Your task to perform on an android device: turn on data saver in the chrome app Image 0: 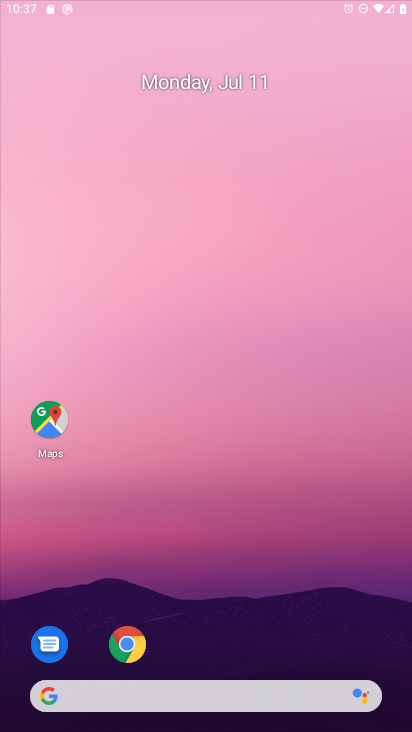
Step 0: drag from (197, 616) to (214, 384)
Your task to perform on an android device: turn on data saver in the chrome app Image 1: 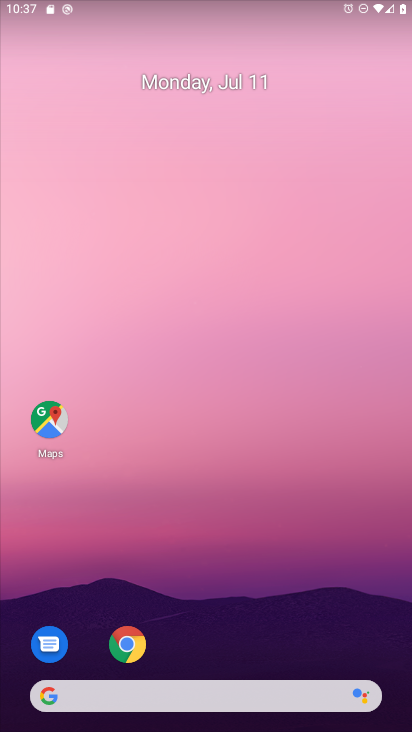
Step 1: drag from (212, 679) to (195, 327)
Your task to perform on an android device: turn on data saver in the chrome app Image 2: 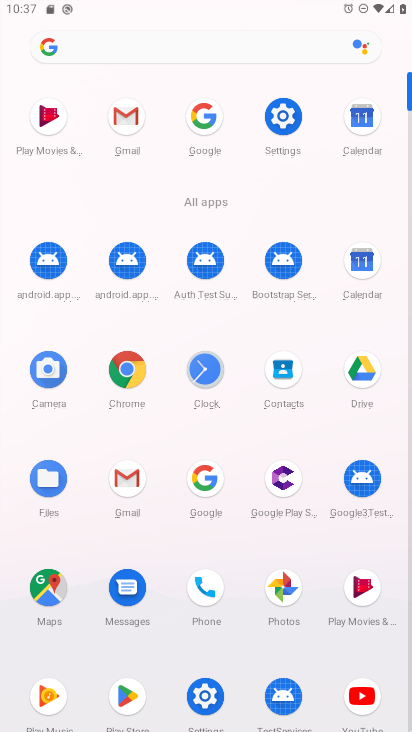
Step 2: click (271, 118)
Your task to perform on an android device: turn on data saver in the chrome app Image 3: 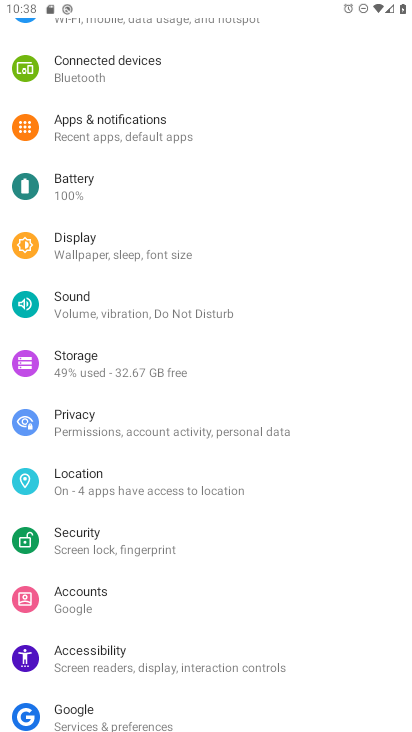
Step 3: press home button
Your task to perform on an android device: turn on data saver in the chrome app Image 4: 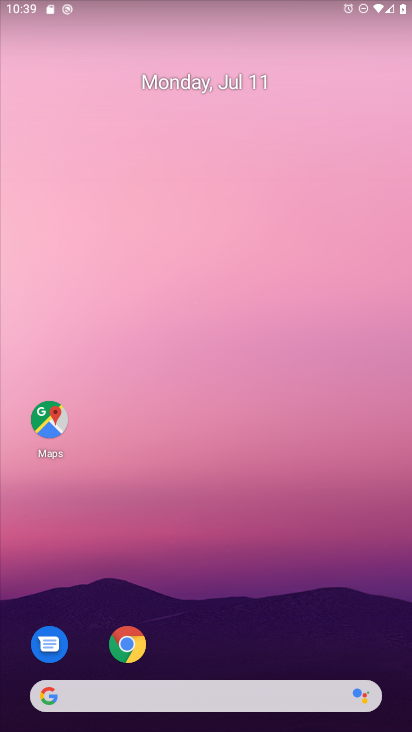
Step 4: click (125, 641)
Your task to perform on an android device: turn on data saver in the chrome app Image 5: 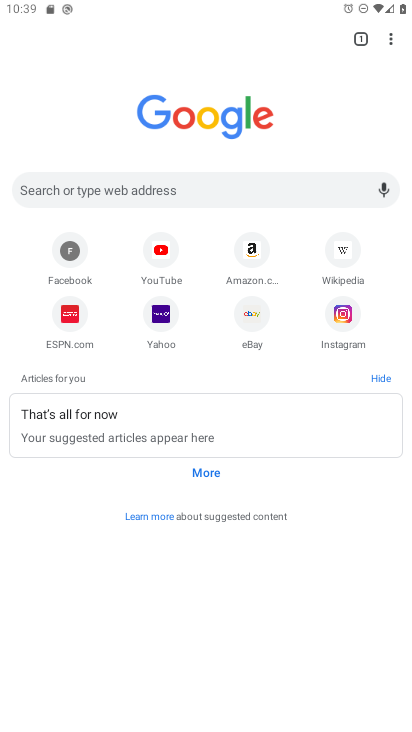
Step 5: click (392, 44)
Your task to perform on an android device: turn on data saver in the chrome app Image 6: 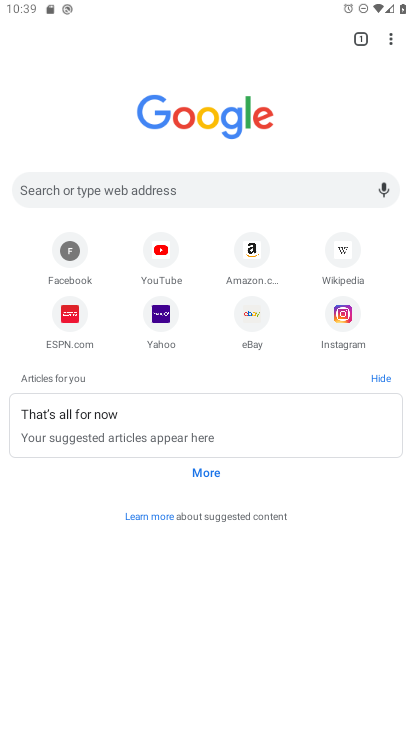
Step 6: click (389, 36)
Your task to perform on an android device: turn on data saver in the chrome app Image 7: 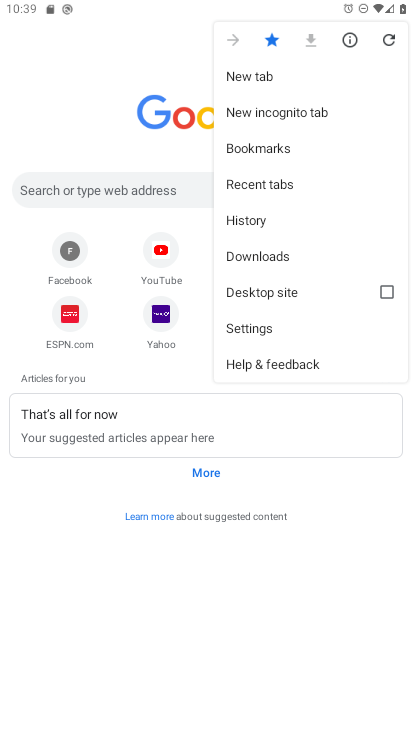
Step 7: click (260, 324)
Your task to perform on an android device: turn on data saver in the chrome app Image 8: 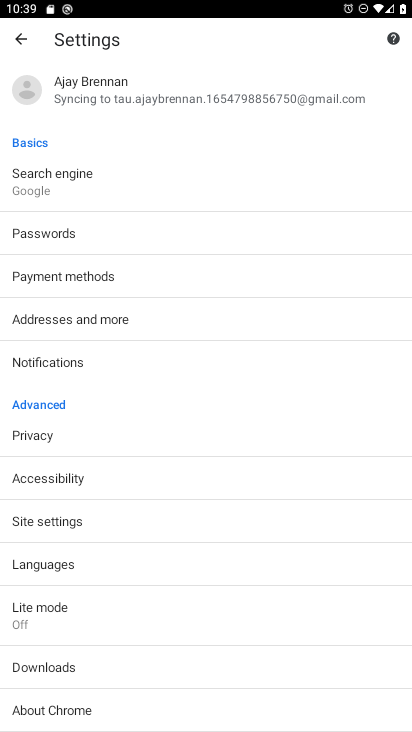
Step 8: click (31, 611)
Your task to perform on an android device: turn on data saver in the chrome app Image 9: 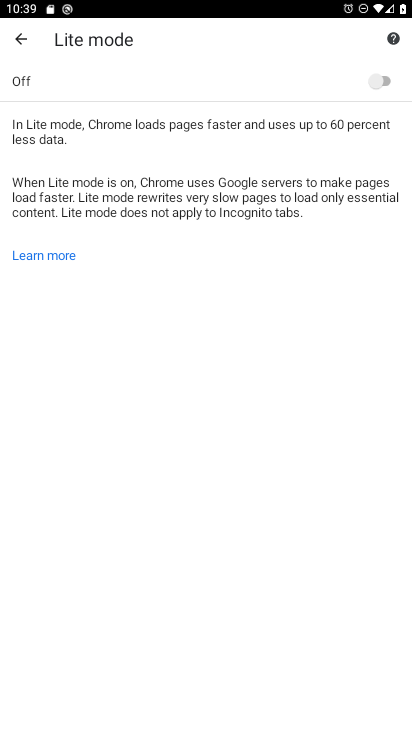
Step 9: click (385, 79)
Your task to perform on an android device: turn on data saver in the chrome app Image 10: 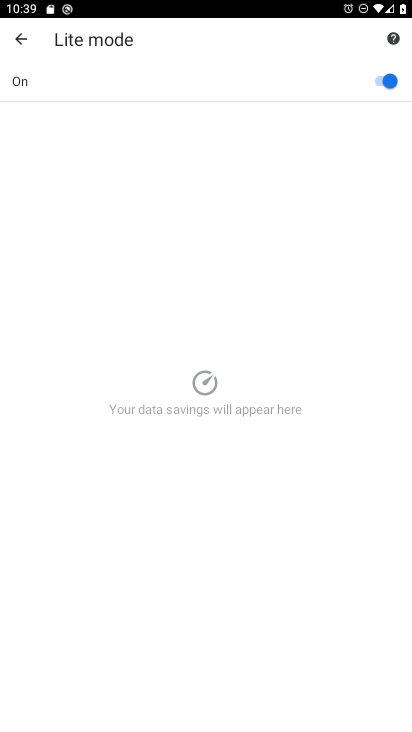
Step 10: task complete